Your task to perform on an android device: Open calendar and show me the first week of next month Image 0: 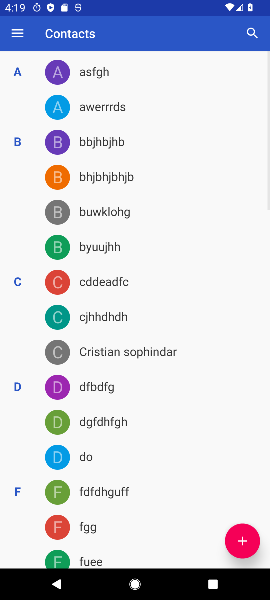
Step 0: press home button
Your task to perform on an android device: Open calendar and show me the first week of next month Image 1: 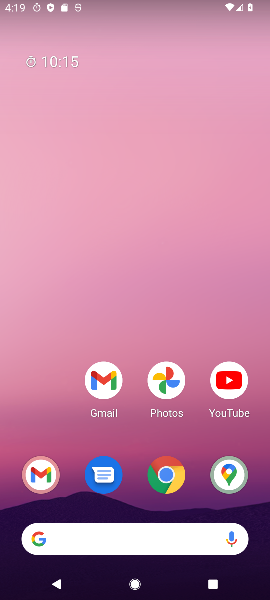
Step 1: drag from (119, 436) to (86, 17)
Your task to perform on an android device: Open calendar and show me the first week of next month Image 2: 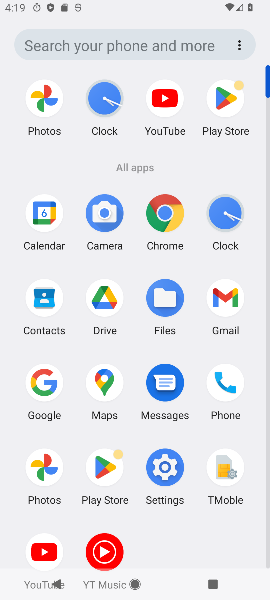
Step 2: click (44, 216)
Your task to perform on an android device: Open calendar and show me the first week of next month Image 3: 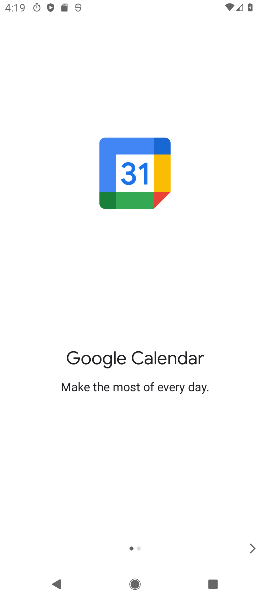
Step 3: click (250, 554)
Your task to perform on an android device: Open calendar and show me the first week of next month Image 4: 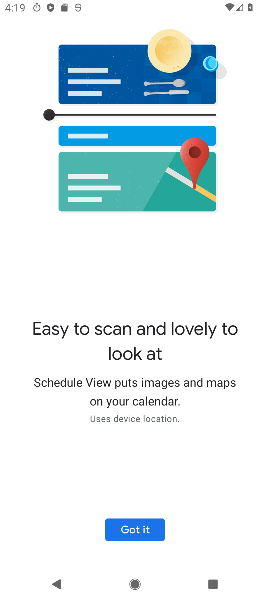
Step 4: click (129, 532)
Your task to perform on an android device: Open calendar and show me the first week of next month Image 5: 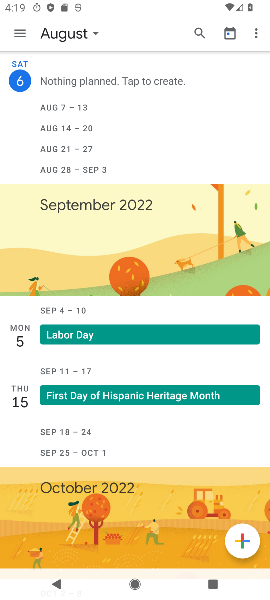
Step 5: click (47, 47)
Your task to perform on an android device: Open calendar and show me the first week of next month Image 6: 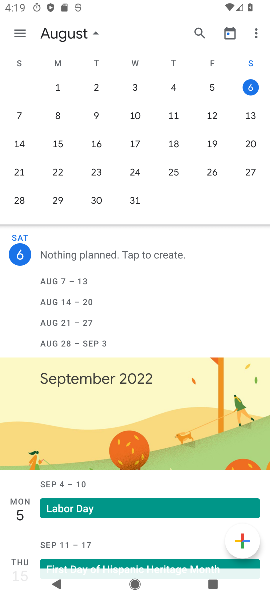
Step 6: task complete